Your task to perform on an android device: Open calendar and show me the first week of next month Image 0: 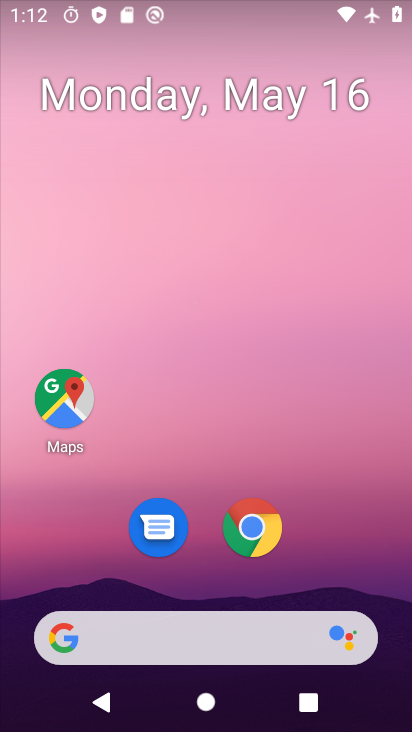
Step 0: press home button
Your task to perform on an android device: Open calendar and show me the first week of next month Image 1: 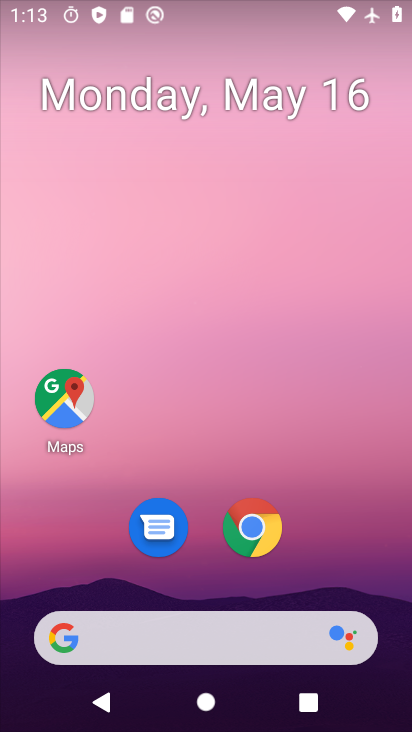
Step 1: drag from (126, 645) to (277, 141)
Your task to perform on an android device: Open calendar and show me the first week of next month Image 2: 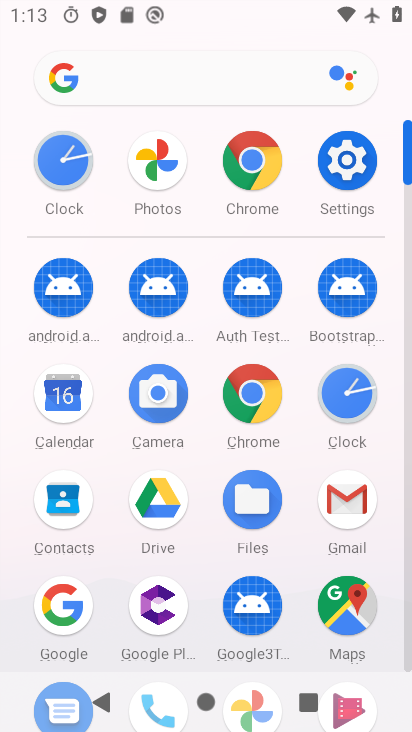
Step 2: click (69, 406)
Your task to perform on an android device: Open calendar and show me the first week of next month Image 3: 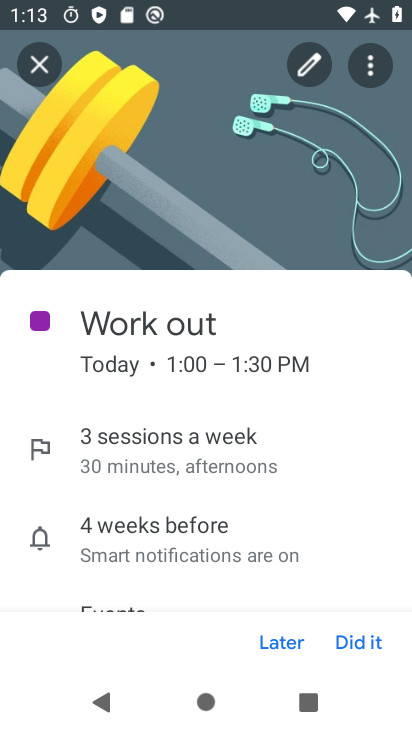
Step 3: click (42, 66)
Your task to perform on an android device: Open calendar and show me the first week of next month Image 4: 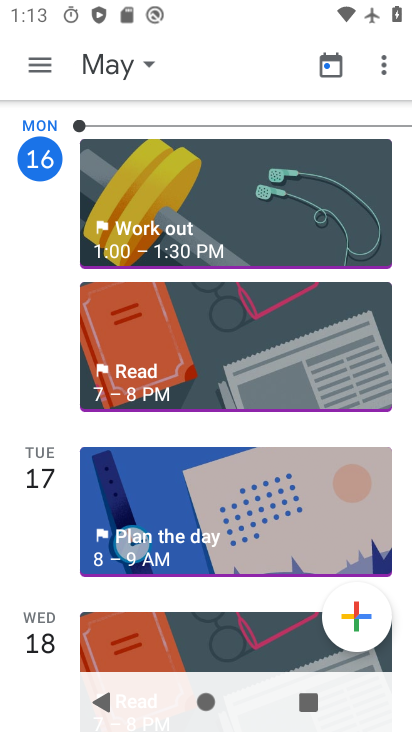
Step 4: click (103, 64)
Your task to perform on an android device: Open calendar and show me the first week of next month Image 5: 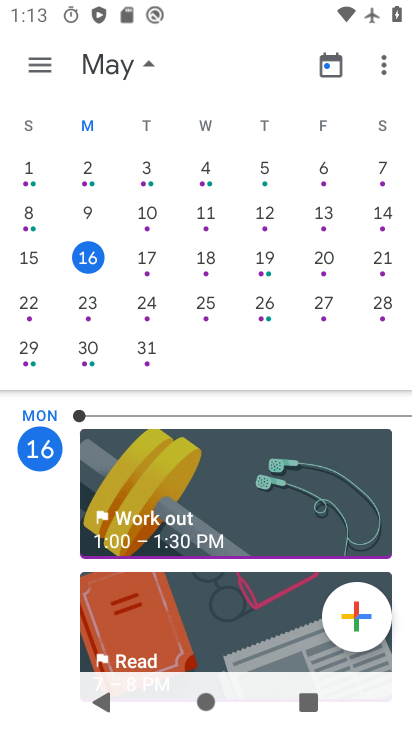
Step 5: drag from (371, 199) to (46, 211)
Your task to perform on an android device: Open calendar and show me the first week of next month Image 6: 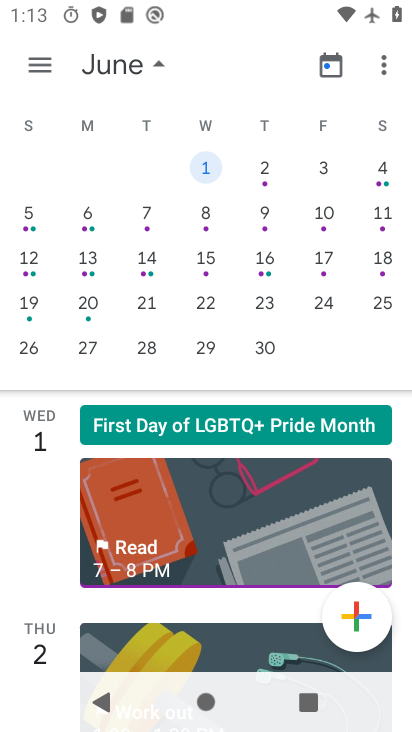
Step 6: click (206, 164)
Your task to perform on an android device: Open calendar and show me the first week of next month Image 7: 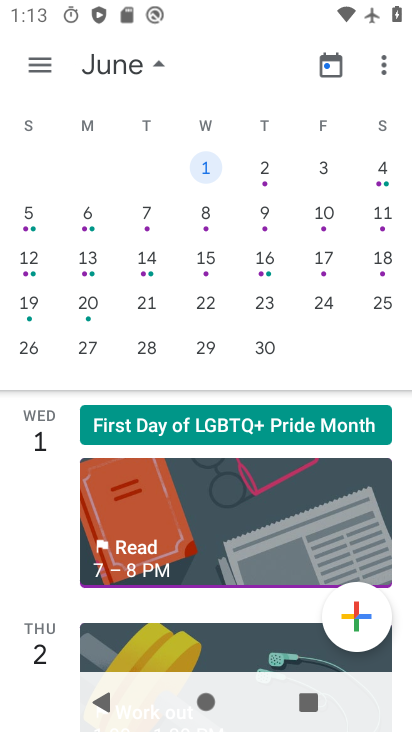
Step 7: click (203, 171)
Your task to perform on an android device: Open calendar and show me the first week of next month Image 8: 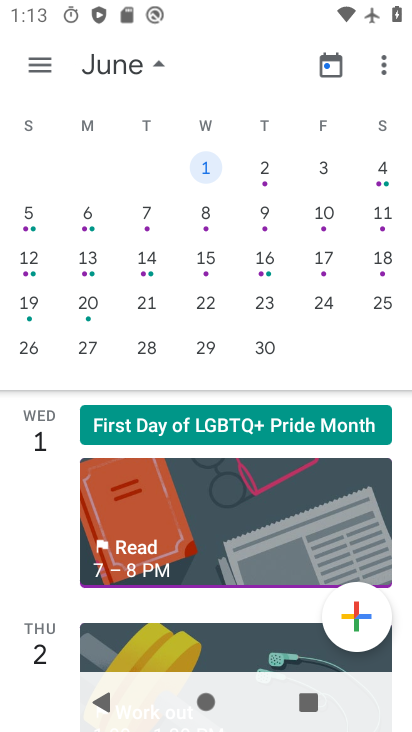
Step 8: click (45, 62)
Your task to perform on an android device: Open calendar and show me the first week of next month Image 9: 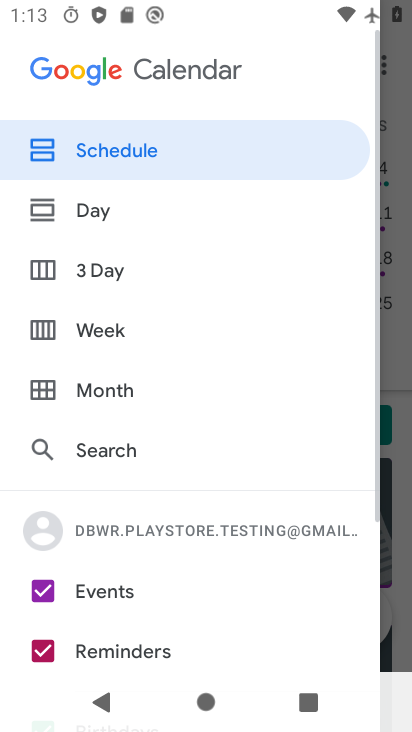
Step 9: click (96, 340)
Your task to perform on an android device: Open calendar and show me the first week of next month Image 10: 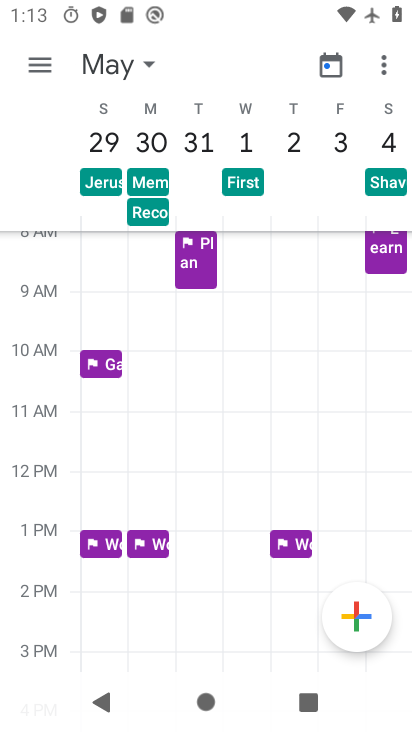
Step 10: task complete